Your task to perform on an android device: Open my contact list Image 0: 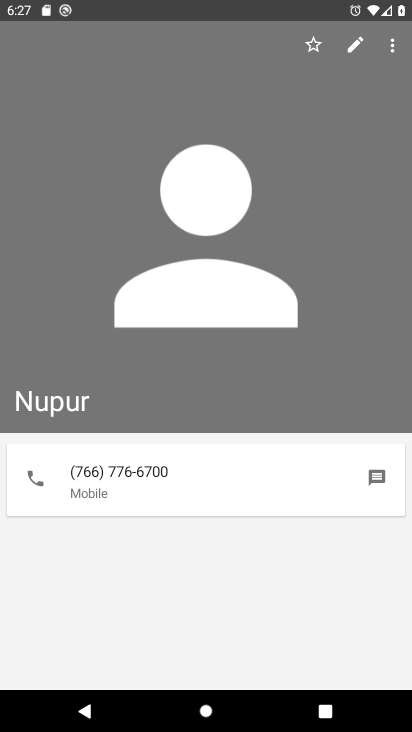
Step 0: press home button
Your task to perform on an android device: Open my contact list Image 1: 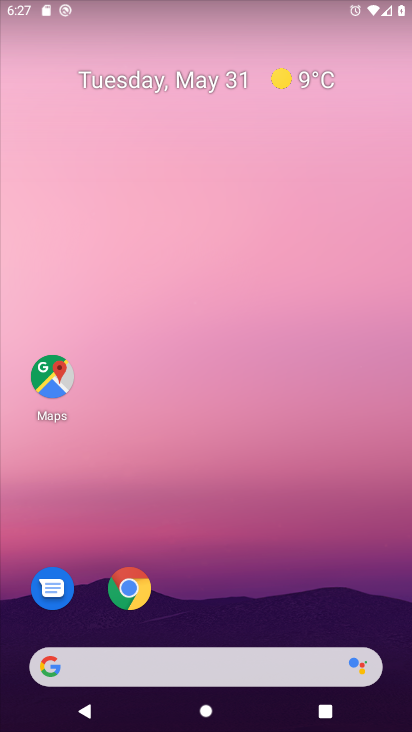
Step 1: drag from (222, 613) to (232, 294)
Your task to perform on an android device: Open my contact list Image 2: 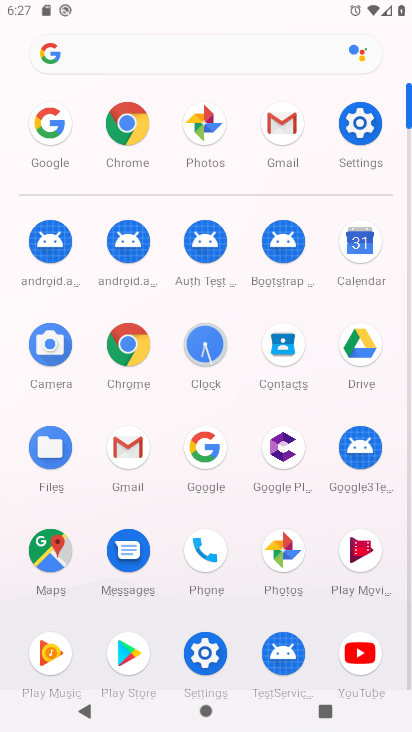
Step 2: click (280, 368)
Your task to perform on an android device: Open my contact list Image 3: 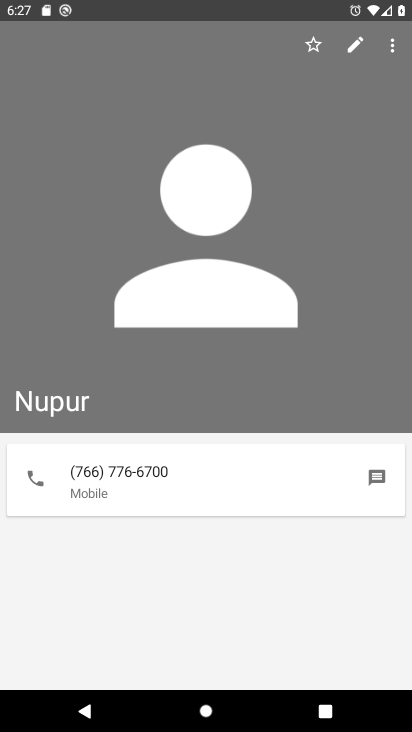
Step 3: task complete